Your task to perform on an android device: Open calendar and show me the third week of next month Image 0: 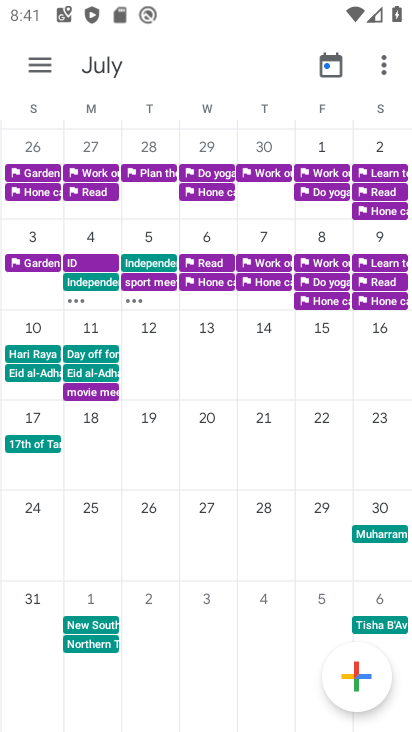
Step 0: task complete